Your task to perform on an android device: Open the stopwatch Image 0: 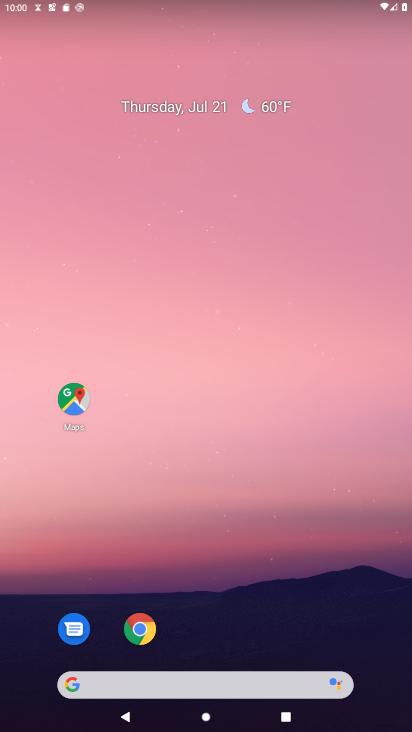
Step 0: drag from (267, 638) to (288, 14)
Your task to perform on an android device: Open the stopwatch Image 1: 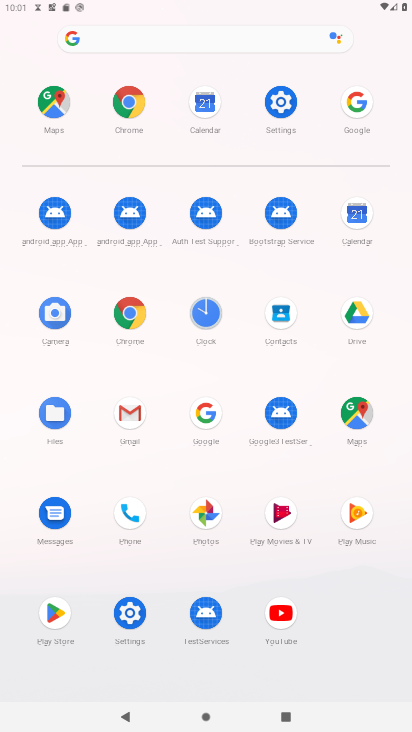
Step 1: click (196, 310)
Your task to perform on an android device: Open the stopwatch Image 2: 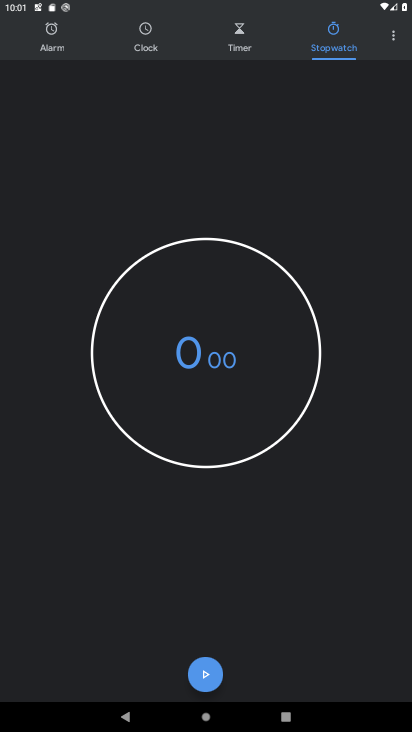
Step 2: task complete